Your task to perform on an android device: Search for apple airpods on target, select the first entry, add it to the cart, then select checkout. Image 0: 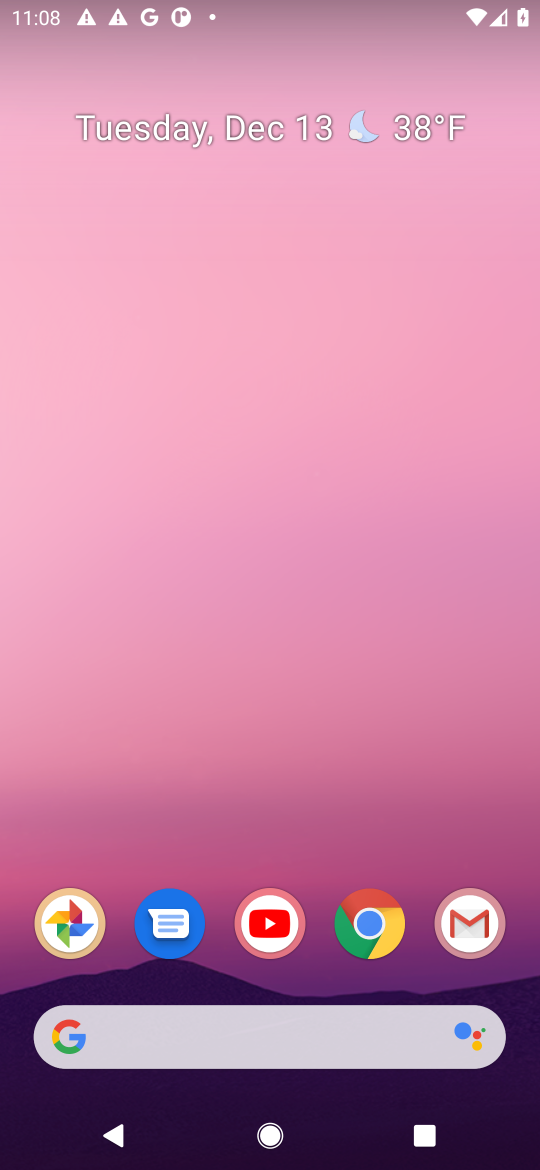
Step 0: click (381, 930)
Your task to perform on an android device: Search for apple airpods on target, select the first entry, add it to the cart, then select checkout. Image 1: 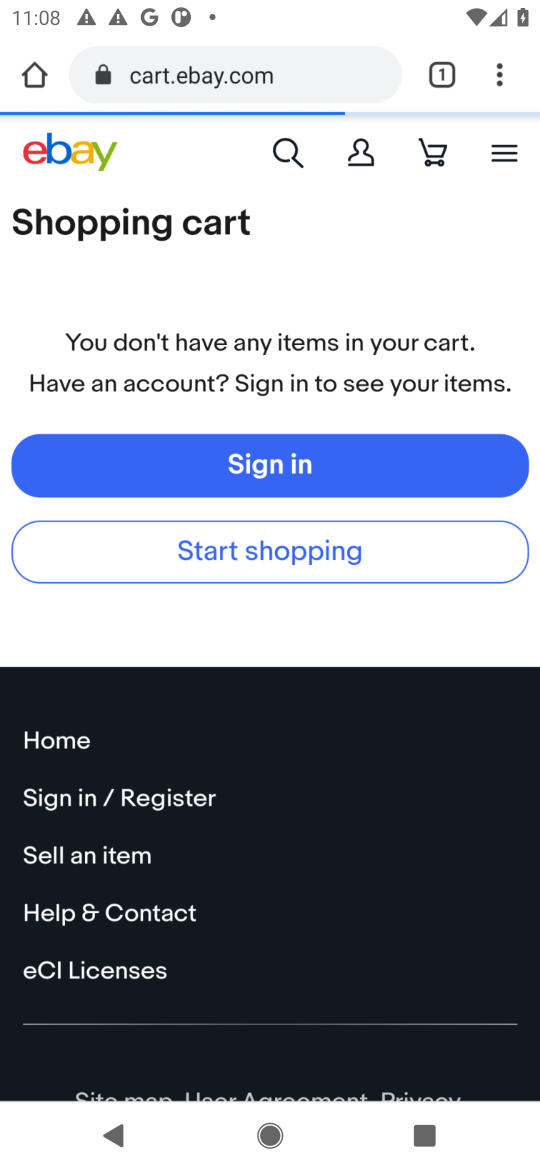
Step 1: click (239, 78)
Your task to perform on an android device: Search for apple airpods on target, select the first entry, add it to the cart, then select checkout. Image 2: 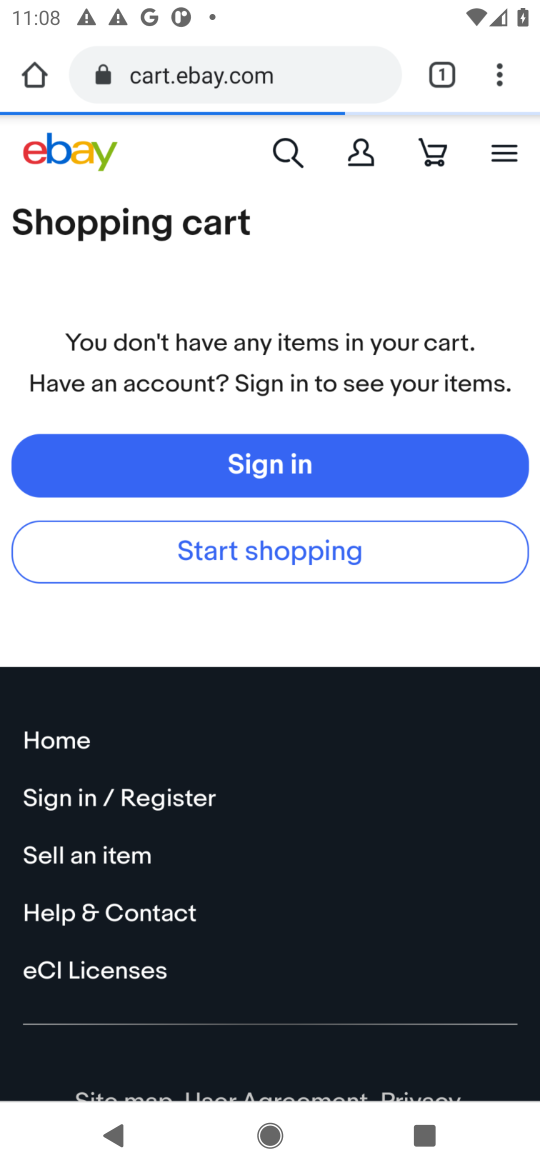
Step 2: click (327, 93)
Your task to perform on an android device: Search for apple airpods on target, select the first entry, add it to the cart, then select checkout. Image 3: 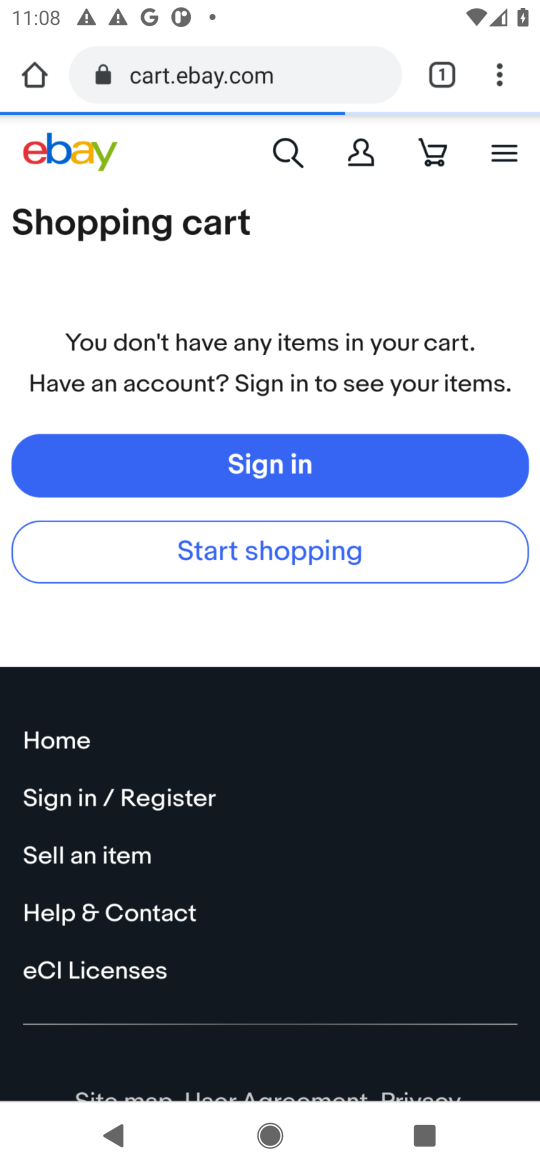
Step 3: click (325, 91)
Your task to perform on an android device: Search for apple airpods on target, select the first entry, add it to the cart, then select checkout. Image 4: 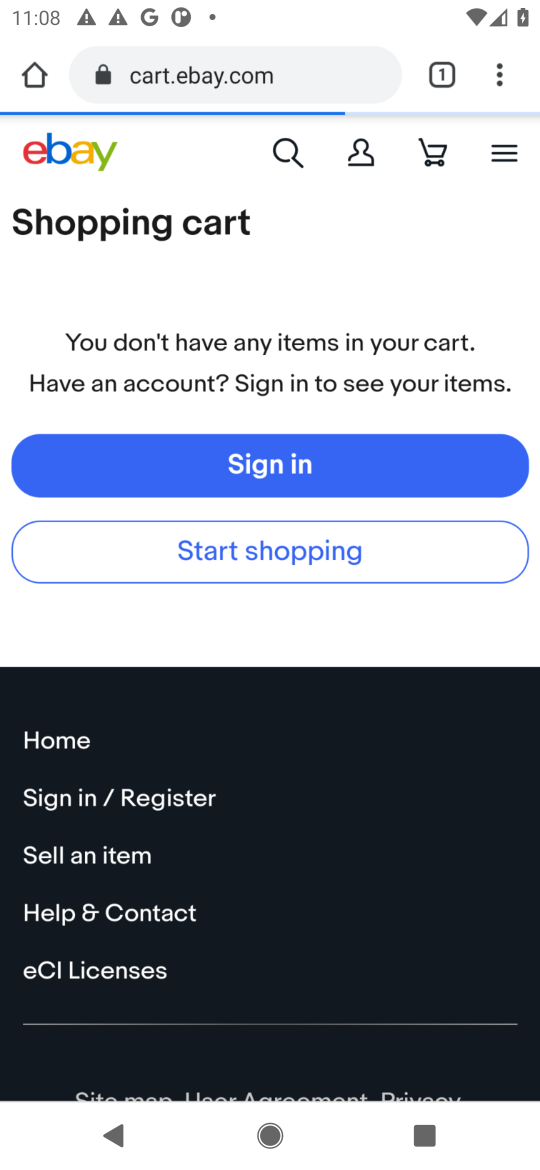
Step 4: click (325, 91)
Your task to perform on an android device: Search for apple airpods on target, select the first entry, add it to the cart, then select checkout. Image 5: 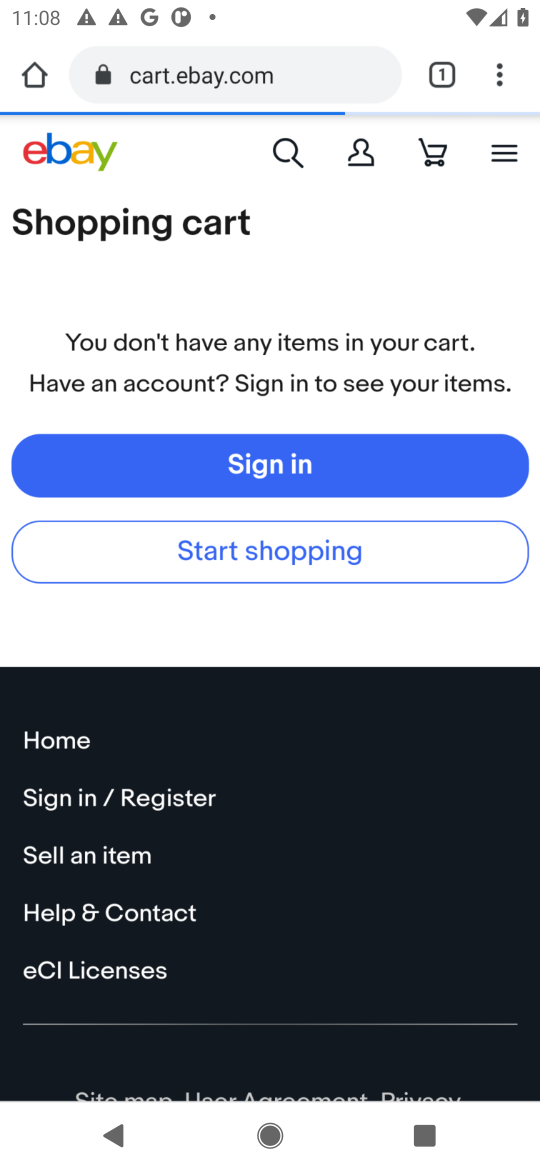
Step 5: click (325, 91)
Your task to perform on an android device: Search for apple airpods on target, select the first entry, add it to the cart, then select checkout. Image 6: 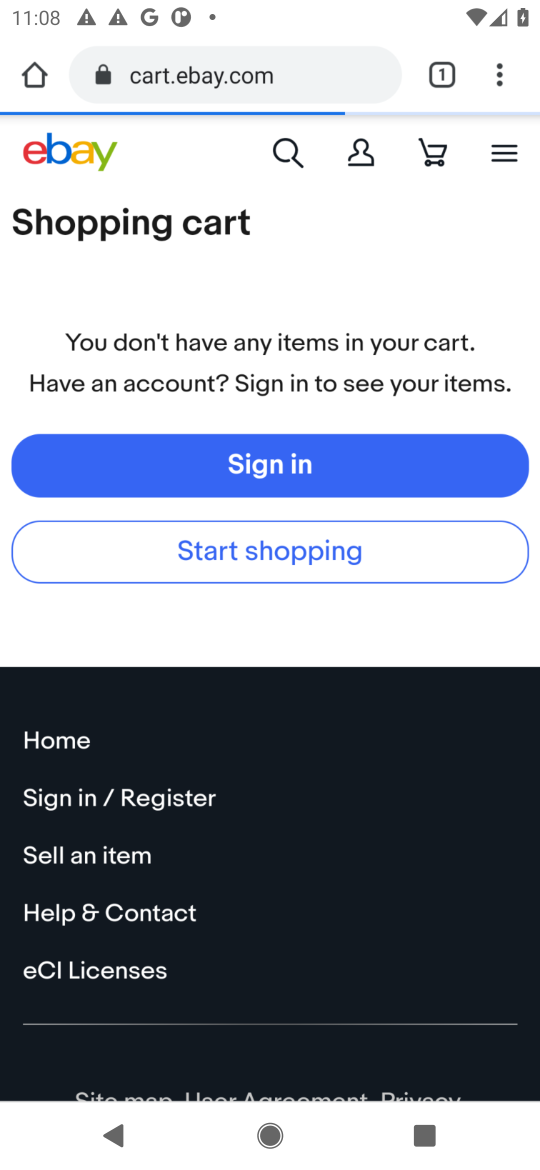
Step 6: click (325, 91)
Your task to perform on an android device: Search for apple airpods on target, select the first entry, add it to the cart, then select checkout. Image 7: 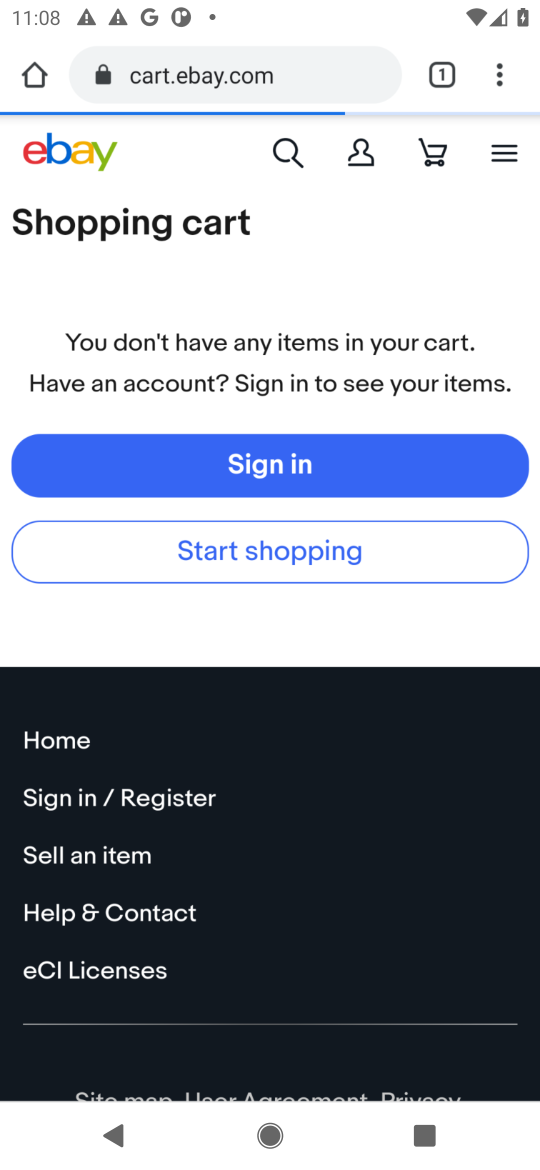
Step 7: click (325, 91)
Your task to perform on an android device: Search for apple airpods on target, select the first entry, add it to the cart, then select checkout. Image 8: 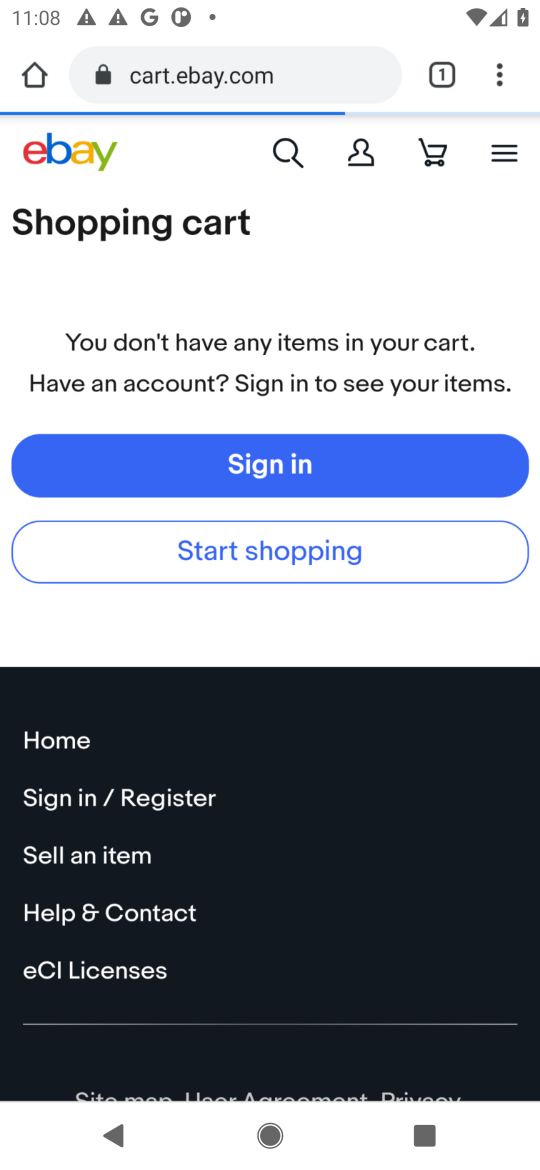
Step 8: click (325, 91)
Your task to perform on an android device: Search for apple airpods on target, select the first entry, add it to the cart, then select checkout. Image 9: 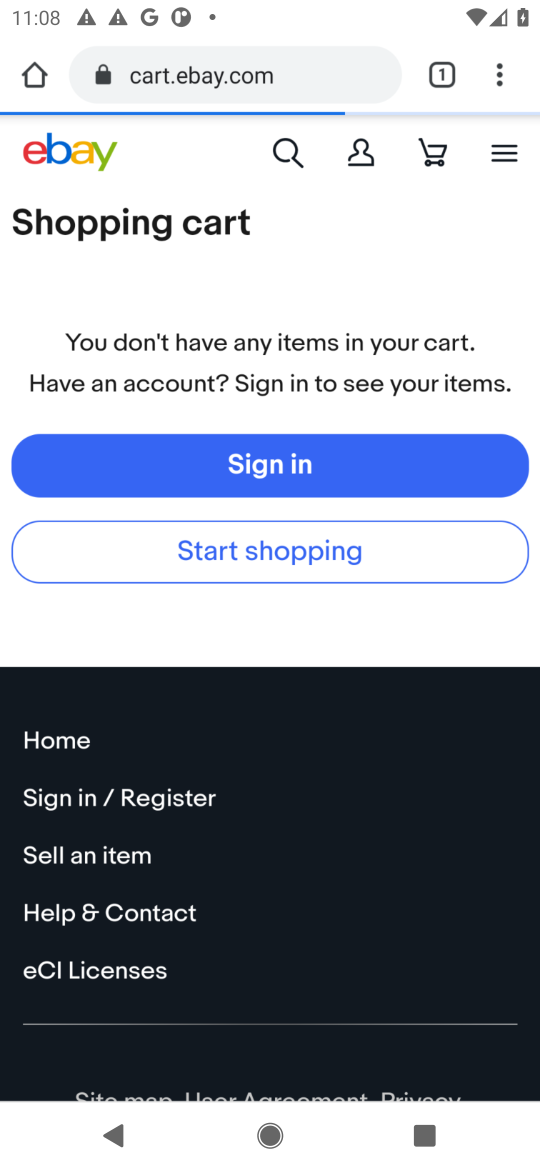
Step 9: click (325, 91)
Your task to perform on an android device: Search for apple airpods on target, select the first entry, add it to the cart, then select checkout. Image 10: 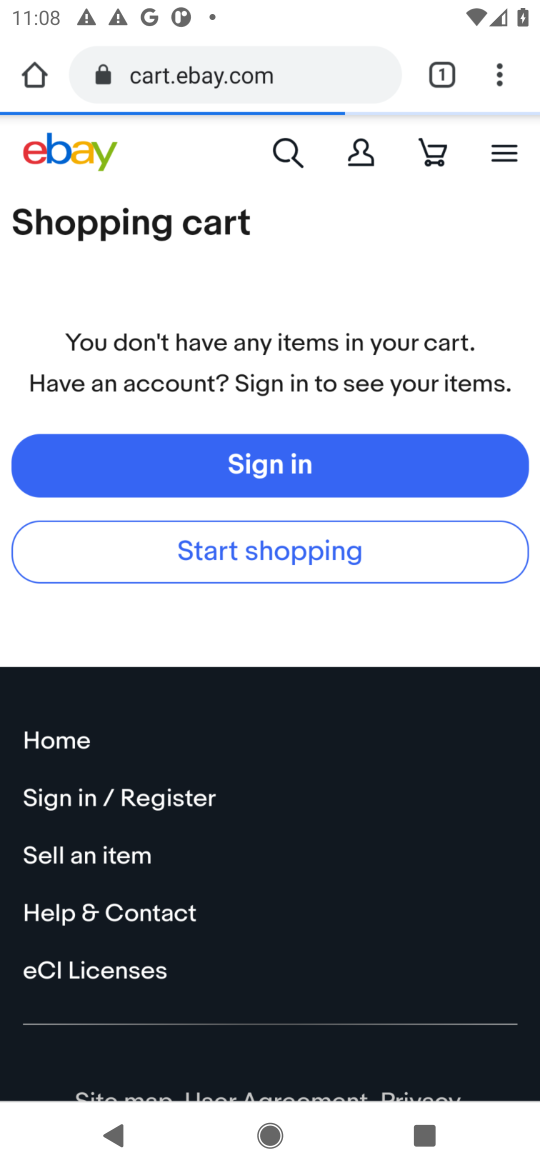
Step 10: click (310, 79)
Your task to perform on an android device: Search for apple airpods on target, select the first entry, add it to the cart, then select checkout. Image 11: 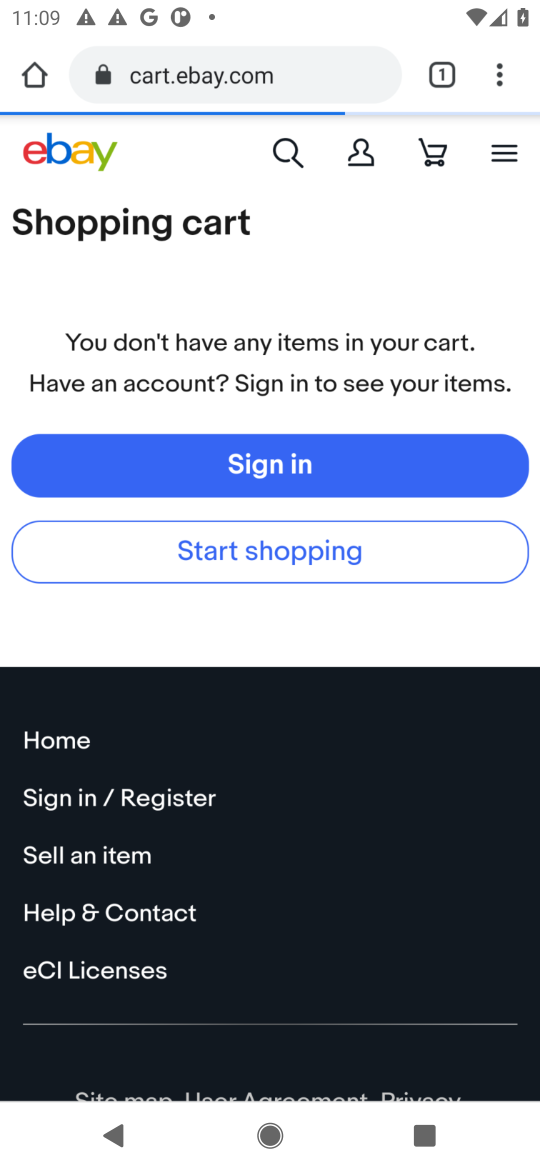
Step 11: click (310, 79)
Your task to perform on an android device: Search for apple airpods on target, select the first entry, add it to the cart, then select checkout. Image 12: 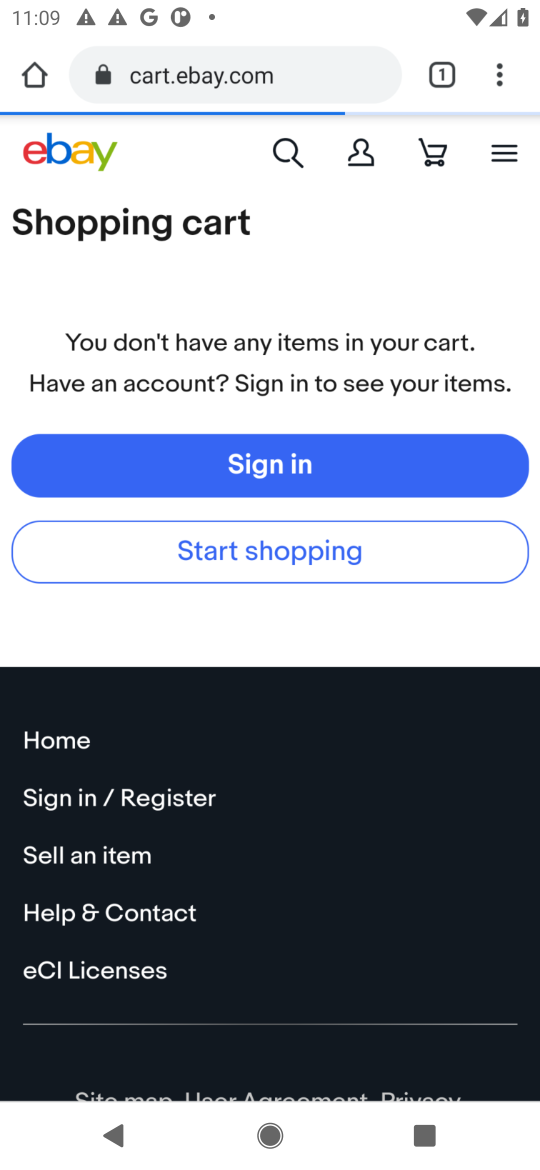
Step 12: click (310, 79)
Your task to perform on an android device: Search for apple airpods on target, select the first entry, add it to the cart, then select checkout. Image 13: 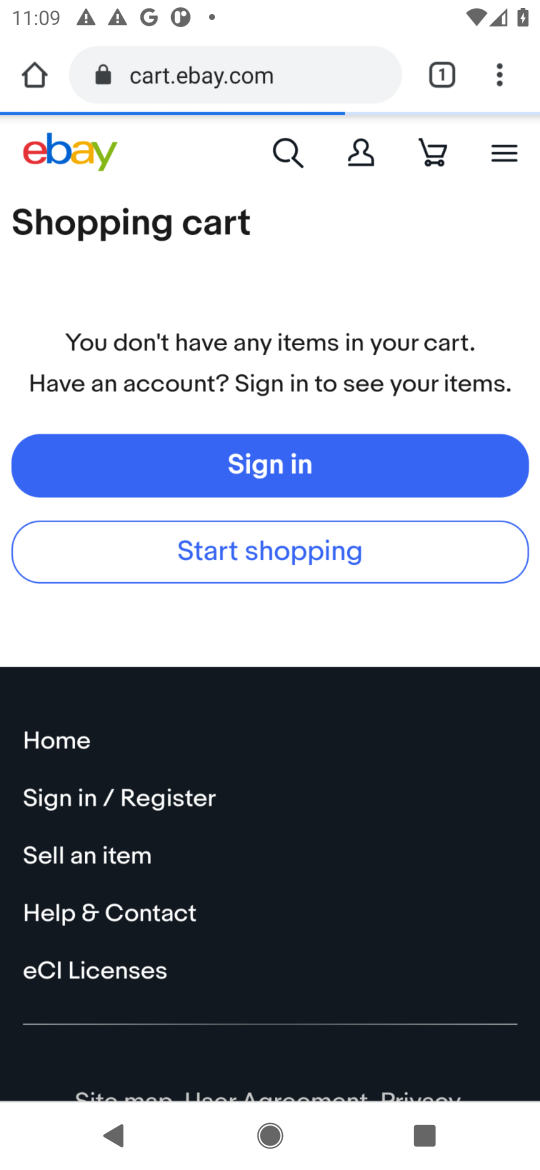
Step 13: click (310, 79)
Your task to perform on an android device: Search for apple airpods on target, select the first entry, add it to the cart, then select checkout. Image 14: 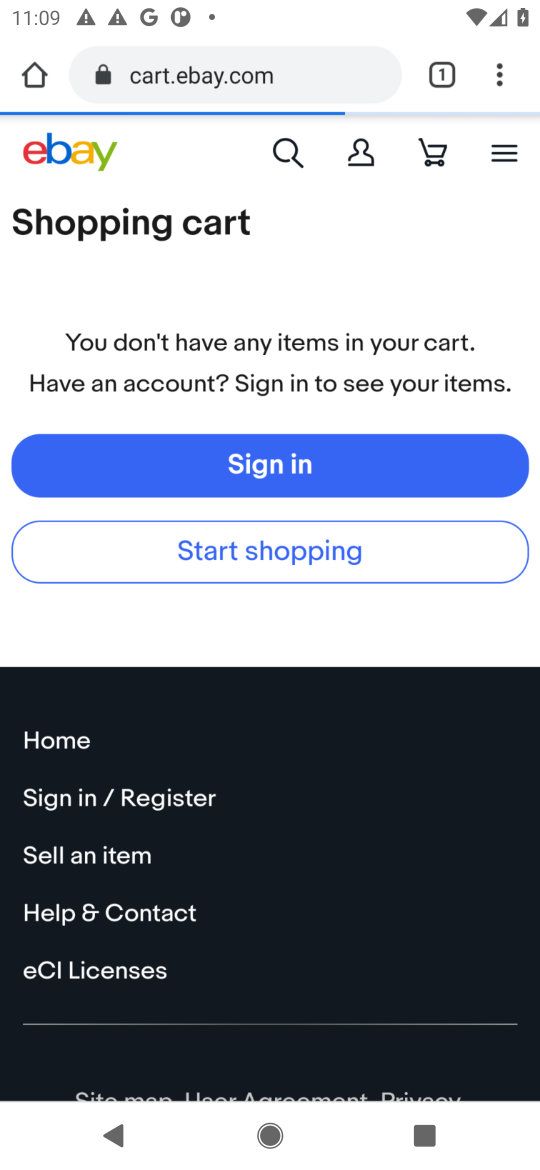
Step 14: click (310, 79)
Your task to perform on an android device: Search for apple airpods on target, select the first entry, add it to the cart, then select checkout. Image 15: 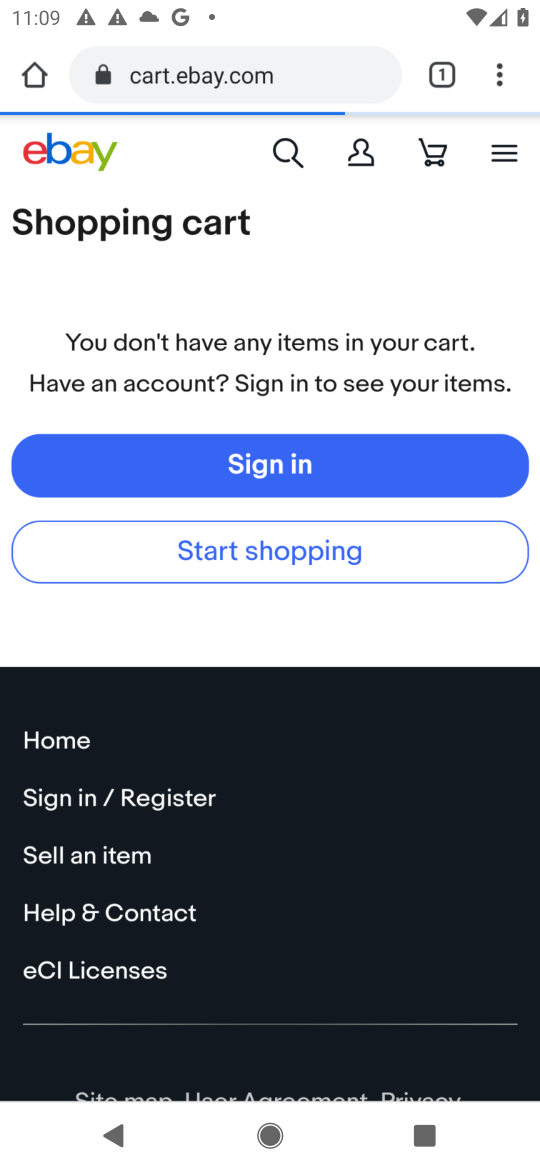
Step 15: click (302, 81)
Your task to perform on an android device: Search for apple airpods on target, select the first entry, add it to the cart, then select checkout. Image 16: 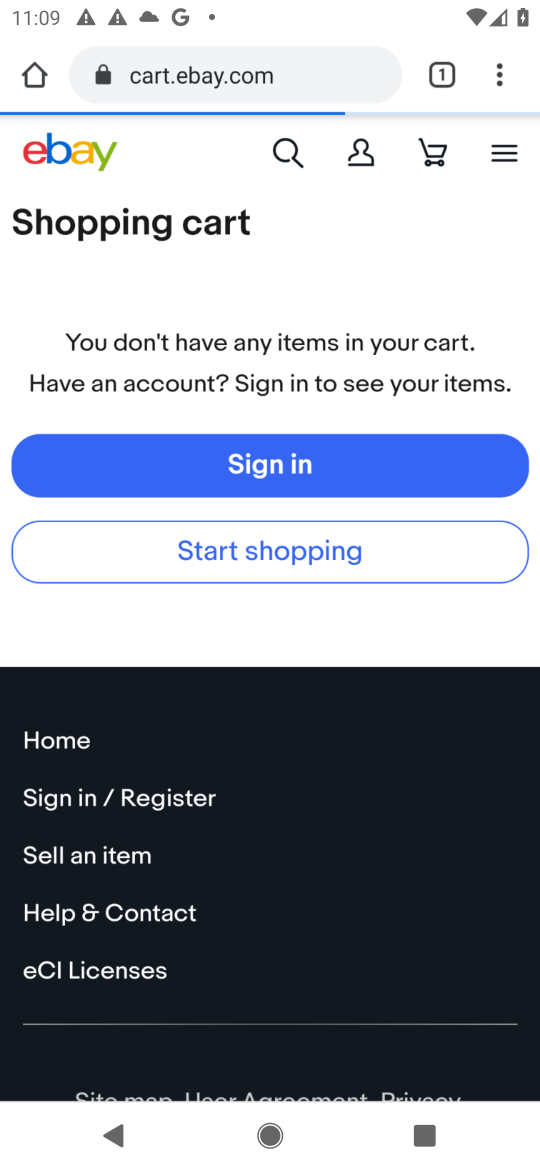
Step 16: click (302, 81)
Your task to perform on an android device: Search for apple airpods on target, select the first entry, add it to the cart, then select checkout. Image 17: 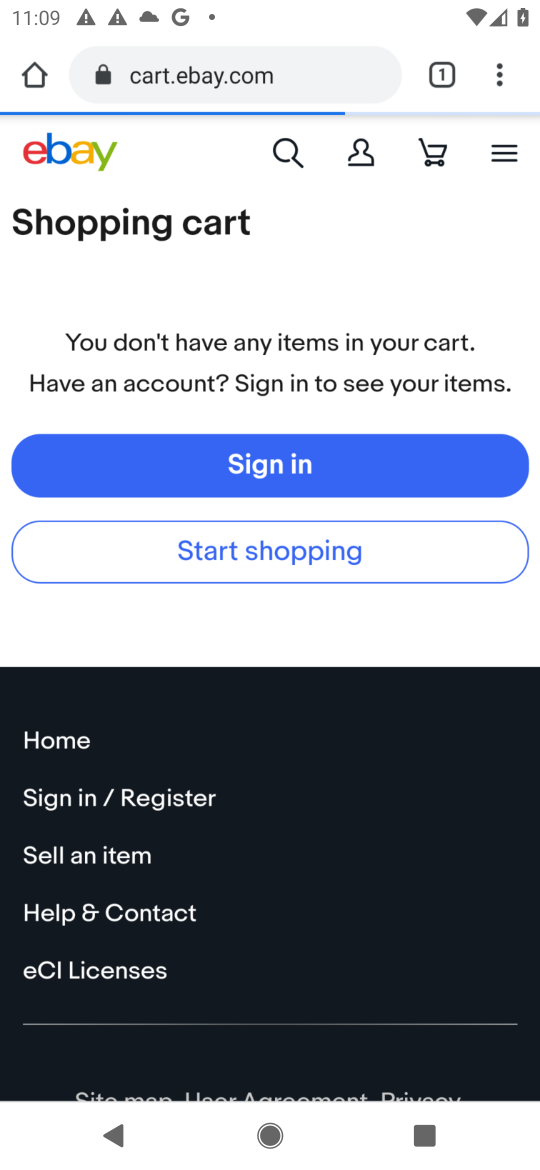
Step 17: click (302, 81)
Your task to perform on an android device: Search for apple airpods on target, select the first entry, add it to the cart, then select checkout. Image 18: 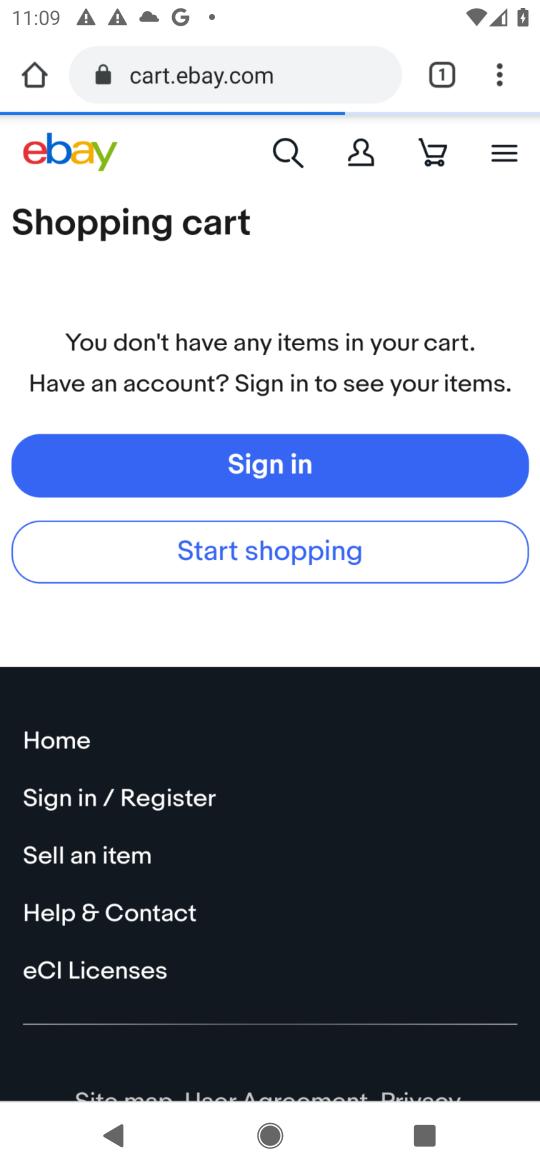
Step 18: click (302, 81)
Your task to perform on an android device: Search for apple airpods on target, select the first entry, add it to the cart, then select checkout. Image 19: 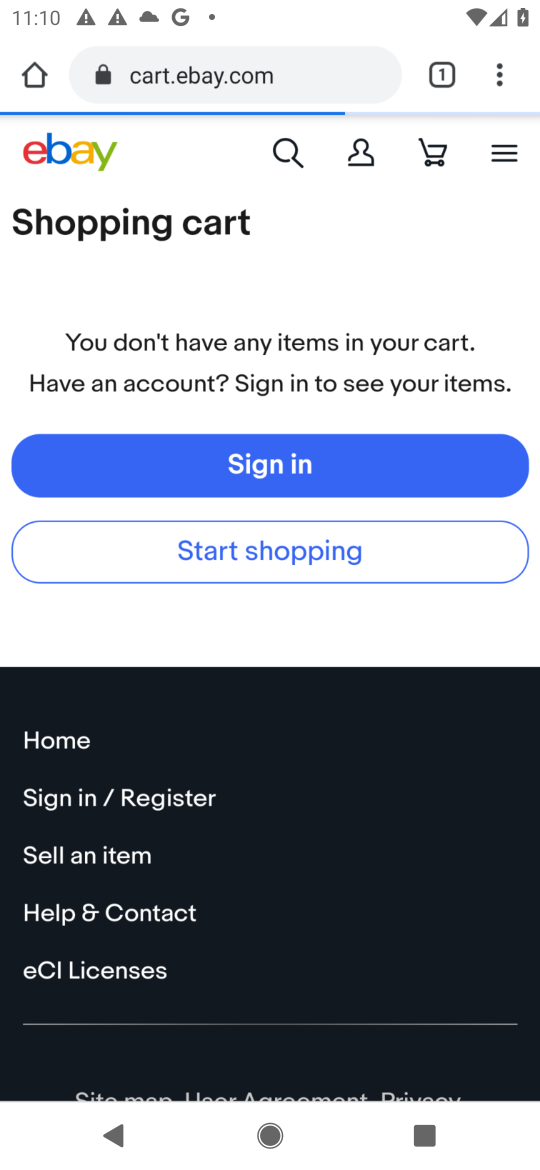
Step 19: click (302, 81)
Your task to perform on an android device: Search for apple airpods on target, select the first entry, add it to the cart, then select checkout. Image 20: 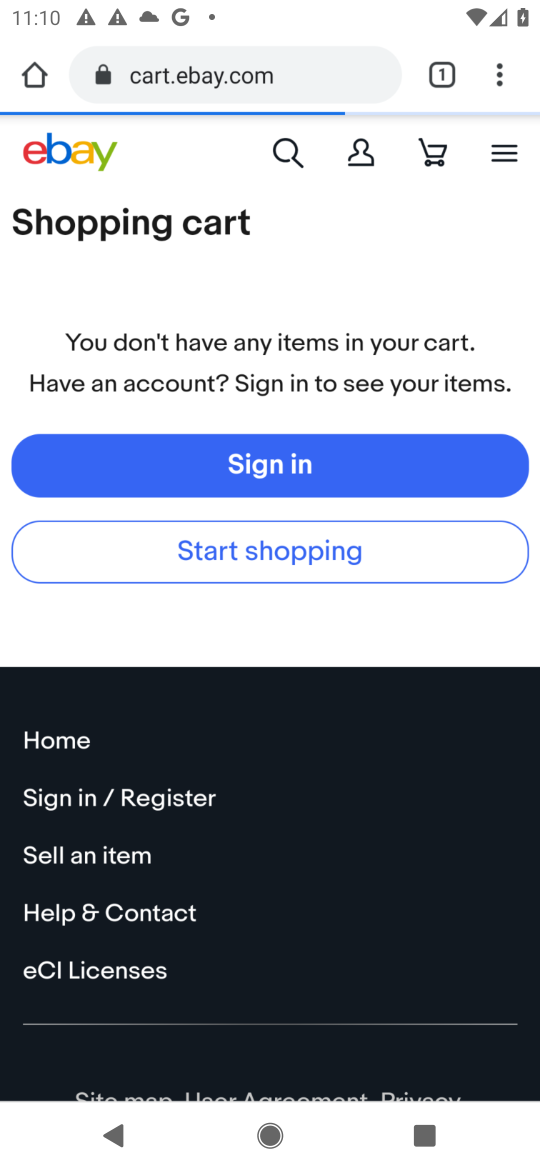
Step 20: task complete